Your task to perform on an android device: Open eBay Image 0: 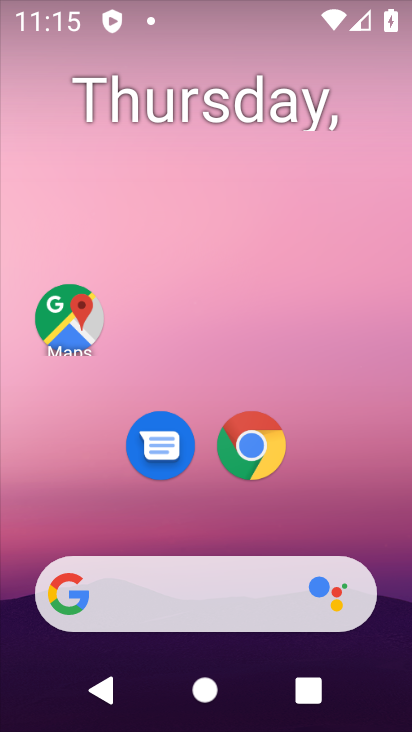
Step 0: drag from (369, 362) to (382, 74)
Your task to perform on an android device: Open eBay Image 1: 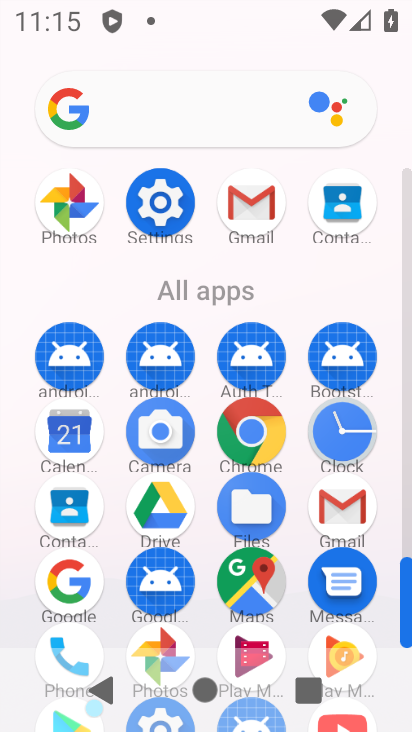
Step 1: click (254, 439)
Your task to perform on an android device: Open eBay Image 2: 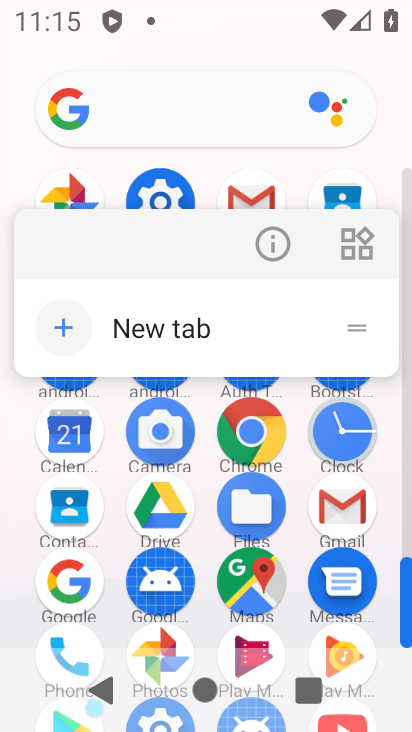
Step 2: click (254, 439)
Your task to perform on an android device: Open eBay Image 3: 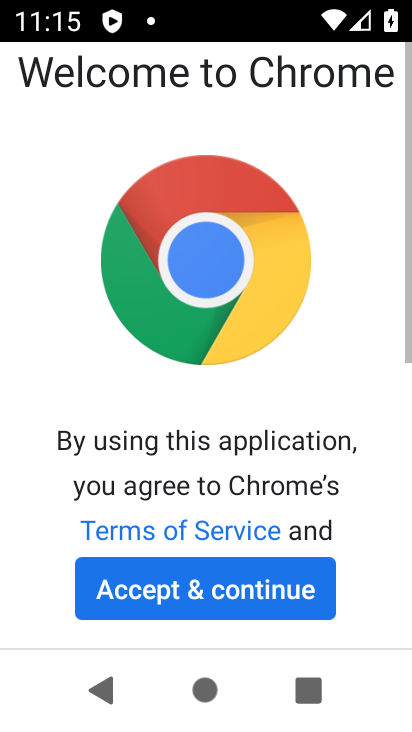
Step 3: click (254, 438)
Your task to perform on an android device: Open eBay Image 4: 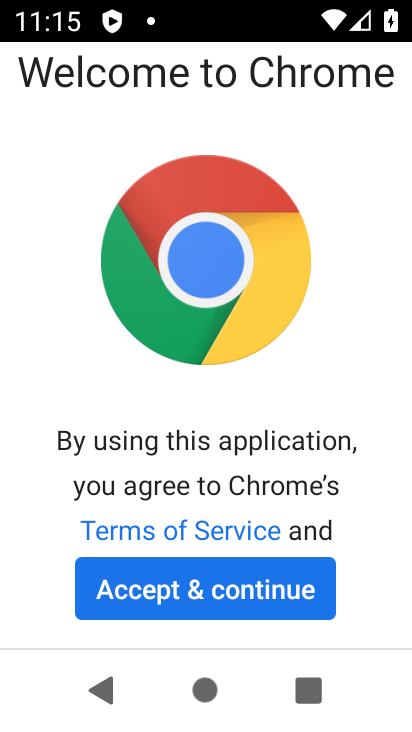
Step 4: click (247, 591)
Your task to perform on an android device: Open eBay Image 5: 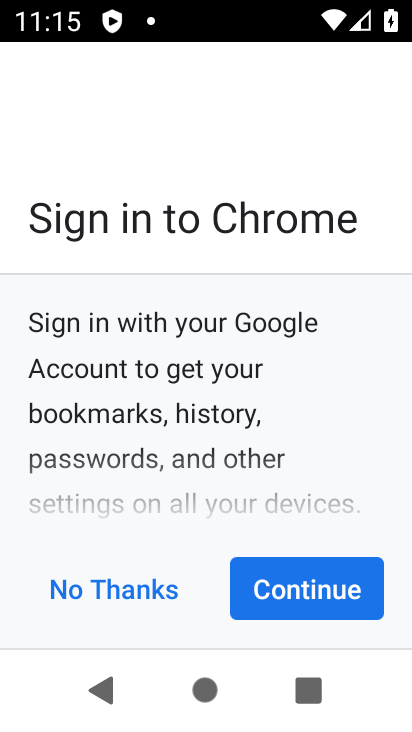
Step 5: click (102, 589)
Your task to perform on an android device: Open eBay Image 6: 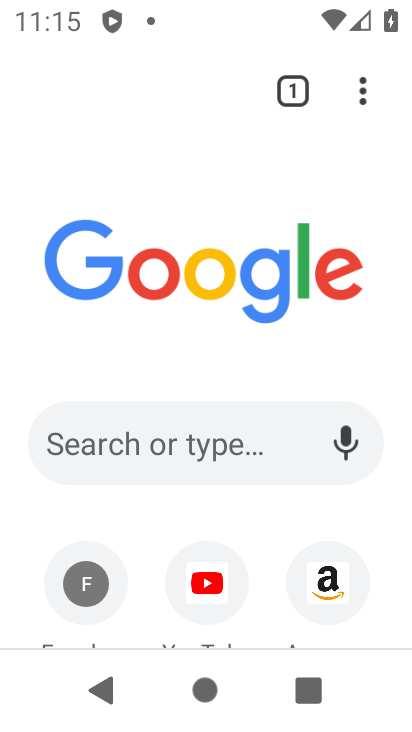
Step 6: drag from (388, 490) to (376, 187)
Your task to perform on an android device: Open eBay Image 7: 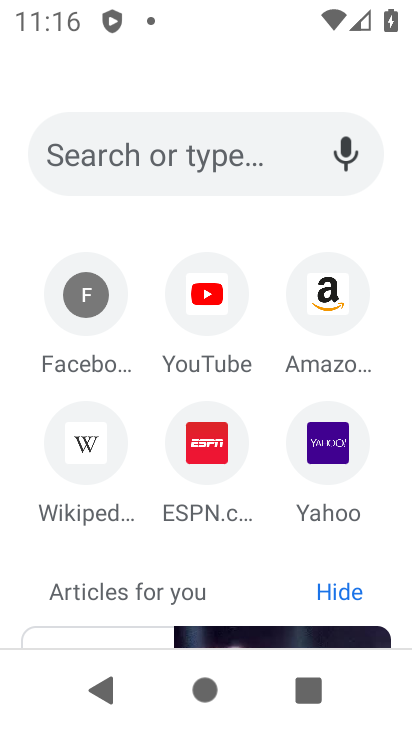
Step 7: drag from (384, 465) to (375, 122)
Your task to perform on an android device: Open eBay Image 8: 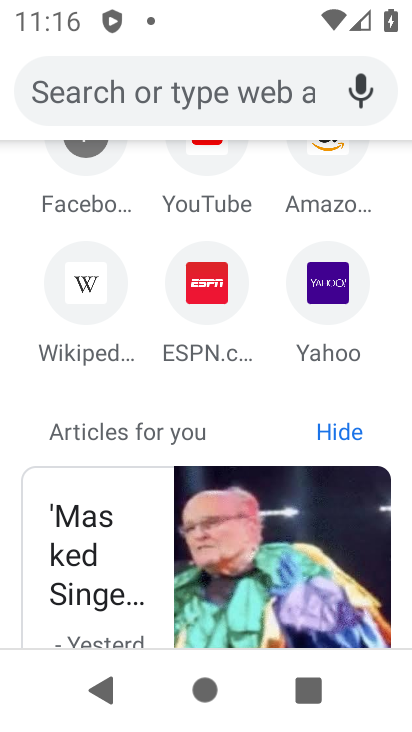
Step 8: drag from (403, 397) to (401, 669)
Your task to perform on an android device: Open eBay Image 9: 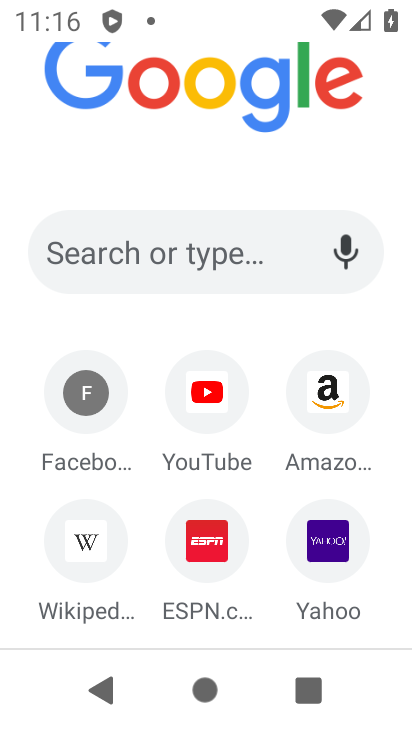
Step 9: click (178, 254)
Your task to perform on an android device: Open eBay Image 10: 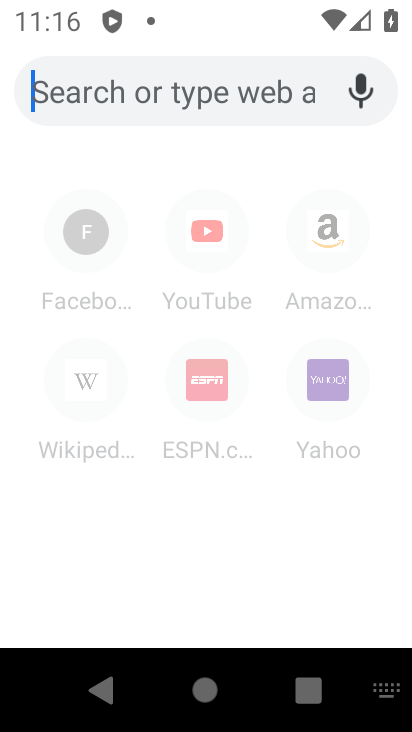
Step 10: type "ebay"
Your task to perform on an android device: Open eBay Image 11: 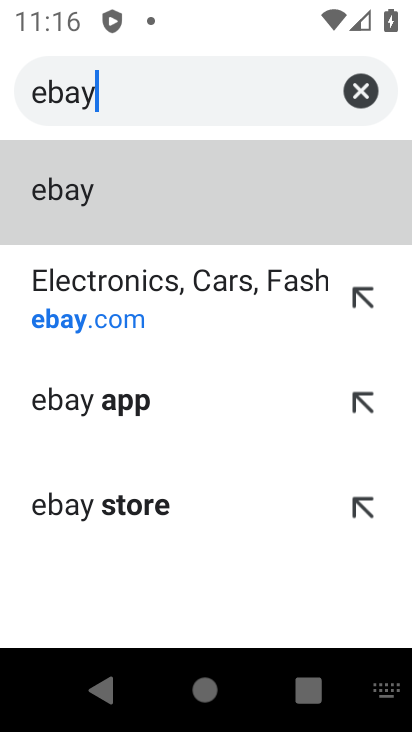
Step 11: click (154, 184)
Your task to perform on an android device: Open eBay Image 12: 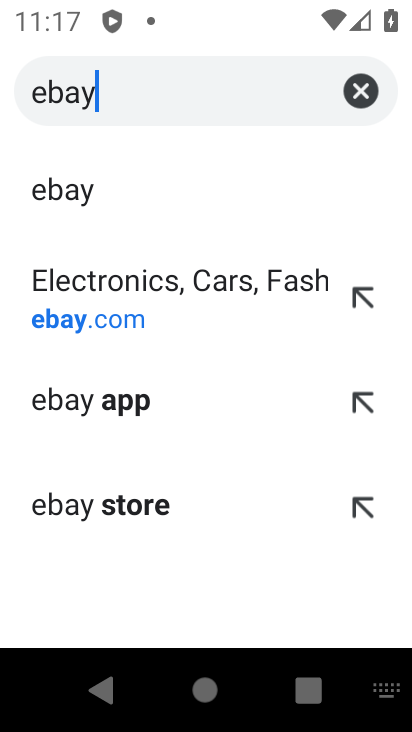
Step 12: click (64, 196)
Your task to perform on an android device: Open eBay Image 13: 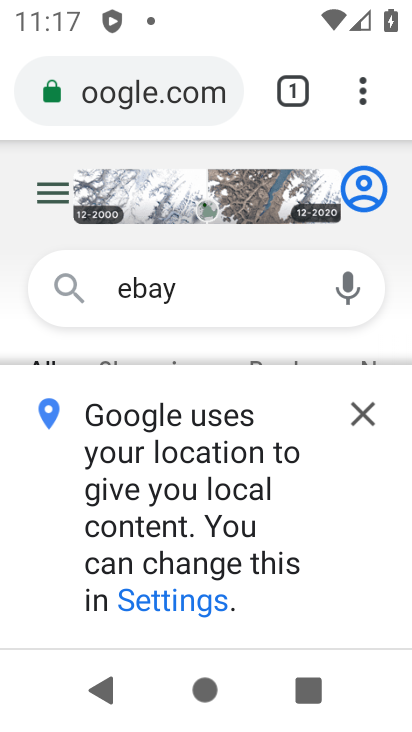
Step 13: click (368, 420)
Your task to perform on an android device: Open eBay Image 14: 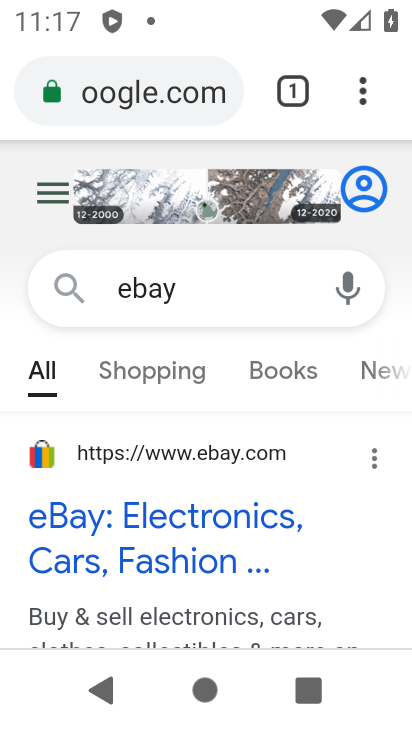
Step 14: click (134, 521)
Your task to perform on an android device: Open eBay Image 15: 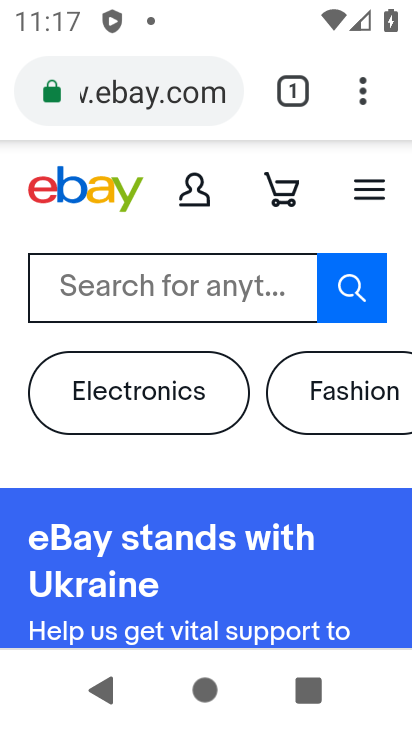
Step 15: task complete